Your task to perform on an android device: toggle pop-ups in chrome Image 0: 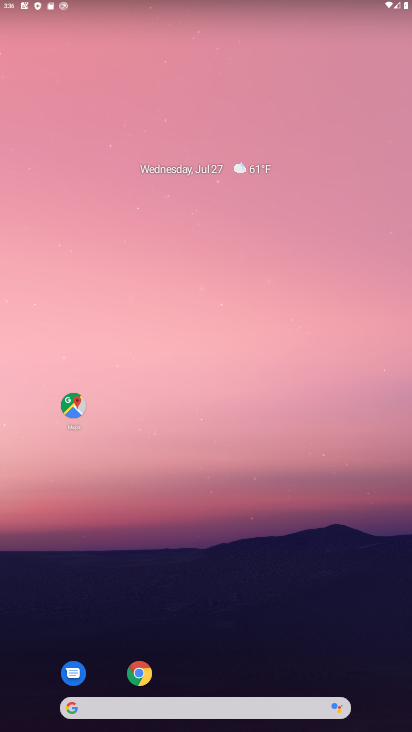
Step 0: click (143, 673)
Your task to perform on an android device: toggle pop-ups in chrome Image 1: 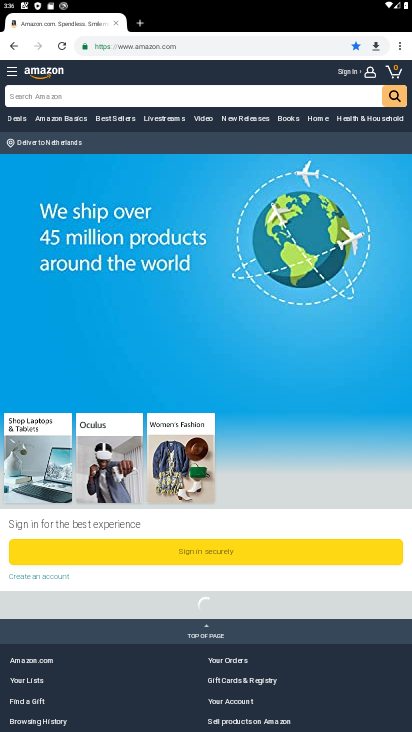
Step 1: click (403, 42)
Your task to perform on an android device: toggle pop-ups in chrome Image 2: 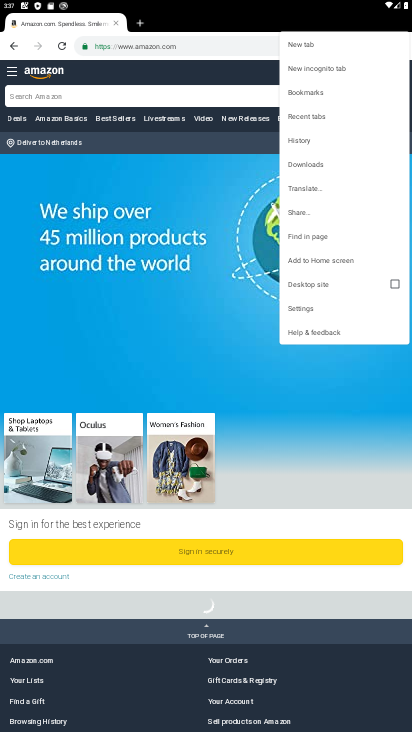
Step 2: click (315, 308)
Your task to perform on an android device: toggle pop-ups in chrome Image 3: 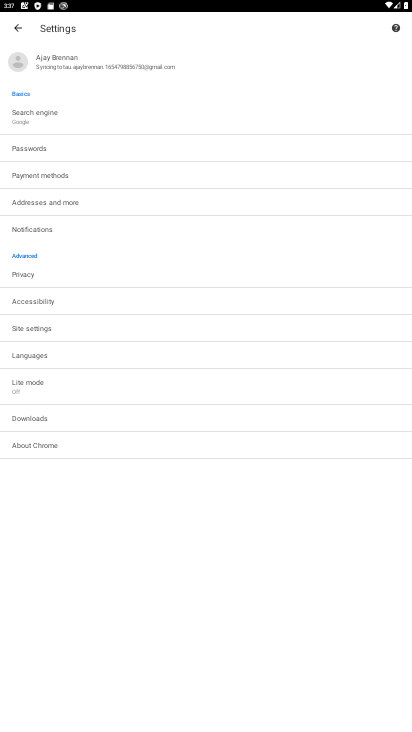
Step 3: click (51, 330)
Your task to perform on an android device: toggle pop-ups in chrome Image 4: 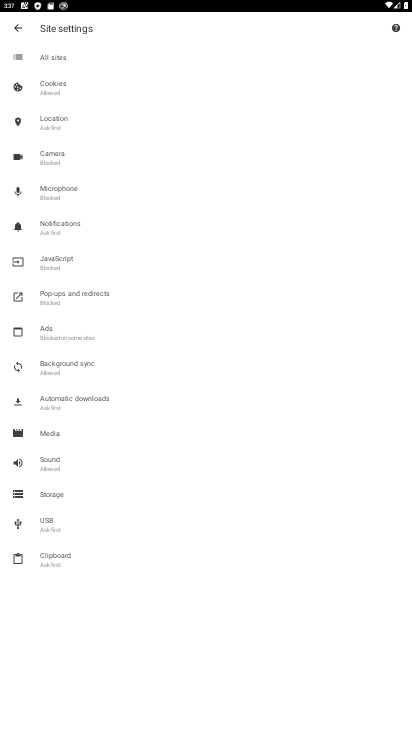
Step 4: click (64, 298)
Your task to perform on an android device: toggle pop-ups in chrome Image 5: 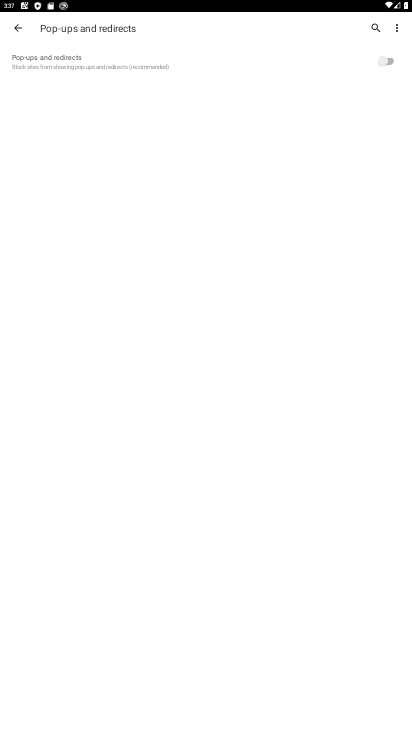
Step 5: click (381, 61)
Your task to perform on an android device: toggle pop-ups in chrome Image 6: 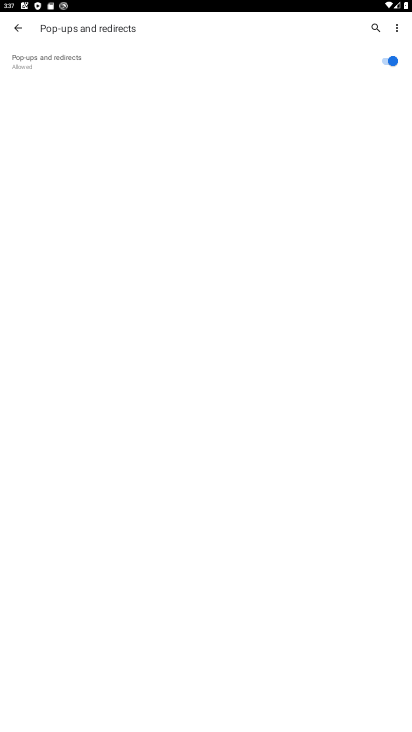
Step 6: task complete